Your task to perform on an android device: Go to Amazon Image 0: 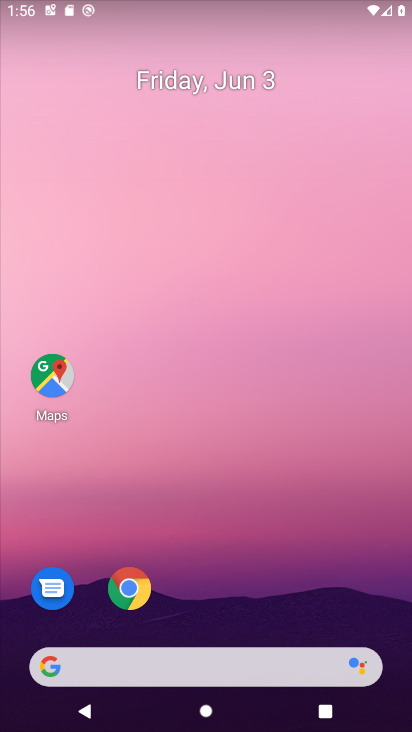
Step 0: drag from (219, 632) to (265, 132)
Your task to perform on an android device: Go to Amazon Image 1: 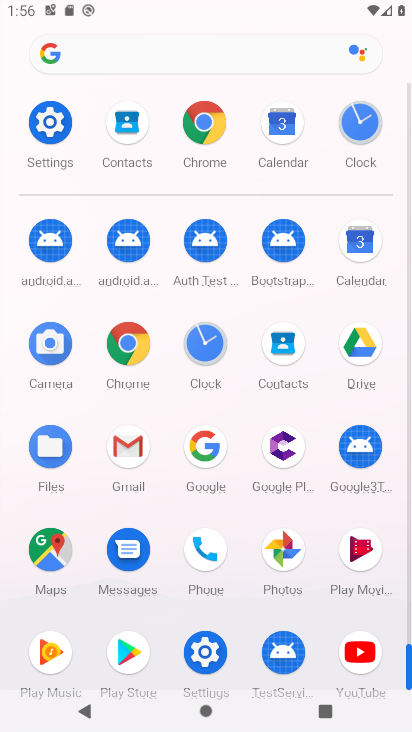
Step 1: click (211, 141)
Your task to perform on an android device: Go to Amazon Image 2: 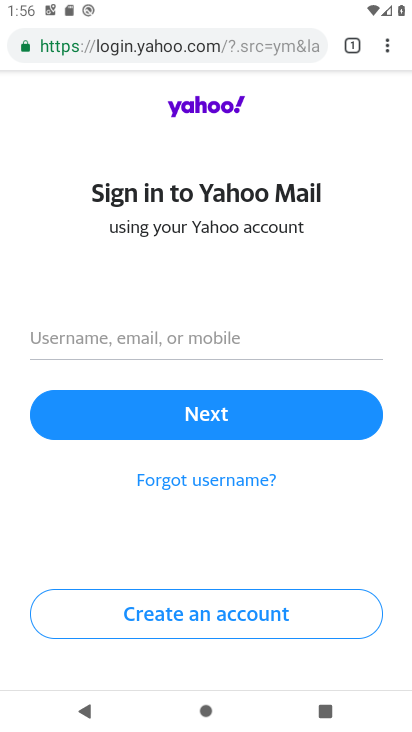
Step 2: click (218, 51)
Your task to perform on an android device: Go to Amazon Image 3: 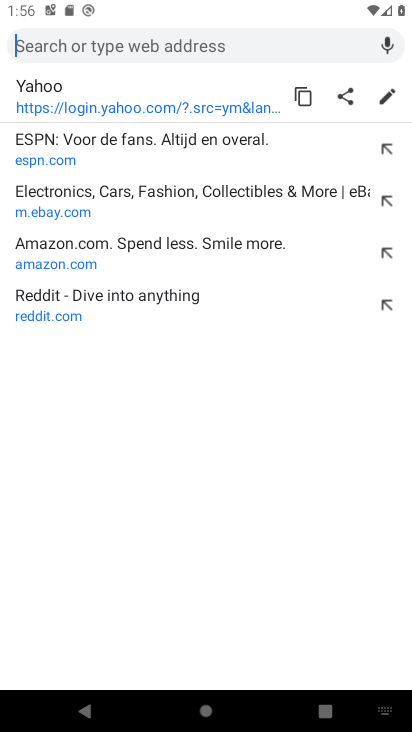
Step 3: type "amazon"
Your task to perform on an android device: Go to Amazon Image 4: 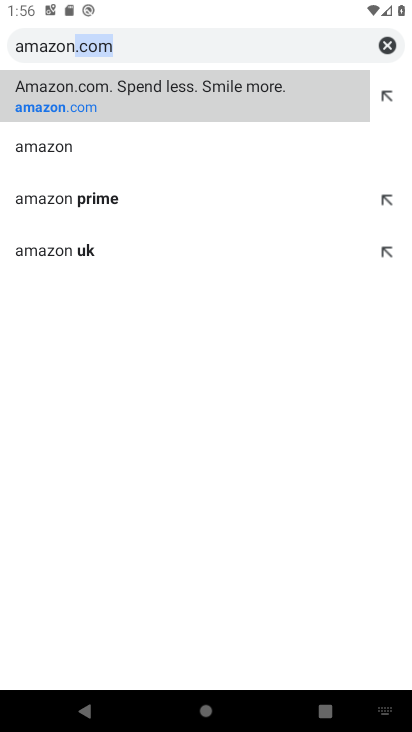
Step 4: click (204, 98)
Your task to perform on an android device: Go to Amazon Image 5: 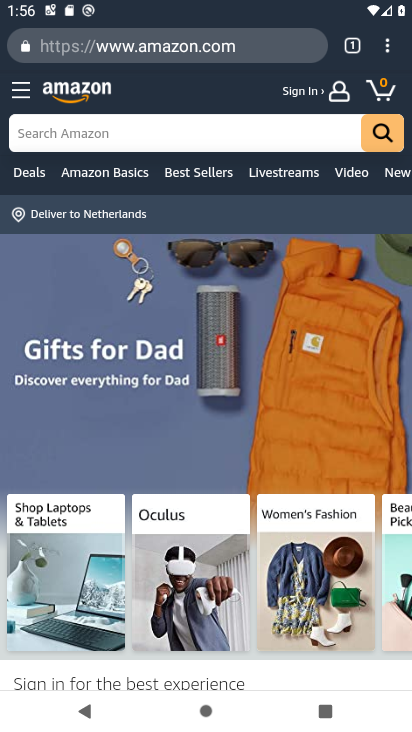
Step 5: task complete